Your task to perform on an android device: delete browsing data in the chrome app Image 0: 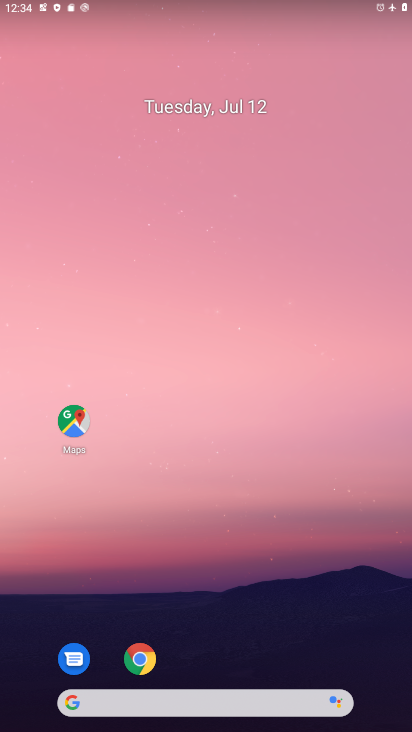
Step 0: drag from (171, 670) to (221, 185)
Your task to perform on an android device: delete browsing data in the chrome app Image 1: 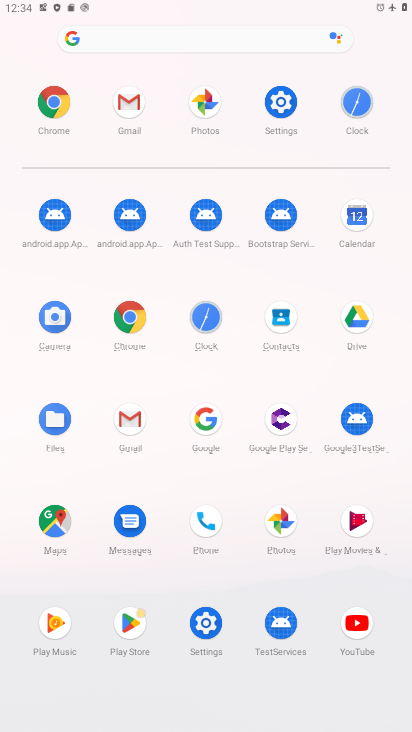
Step 1: click (129, 322)
Your task to perform on an android device: delete browsing data in the chrome app Image 2: 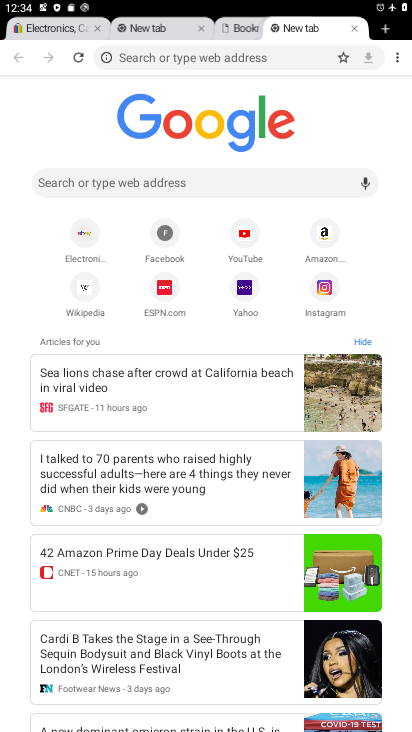
Step 2: click (393, 60)
Your task to perform on an android device: delete browsing data in the chrome app Image 3: 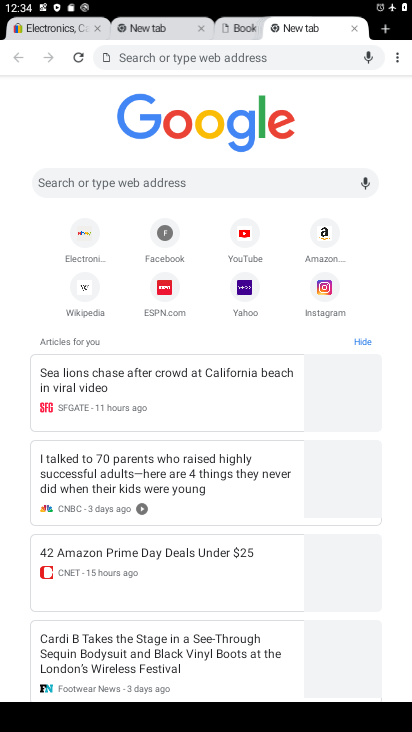
Step 3: drag from (399, 63) to (306, 166)
Your task to perform on an android device: delete browsing data in the chrome app Image 4: 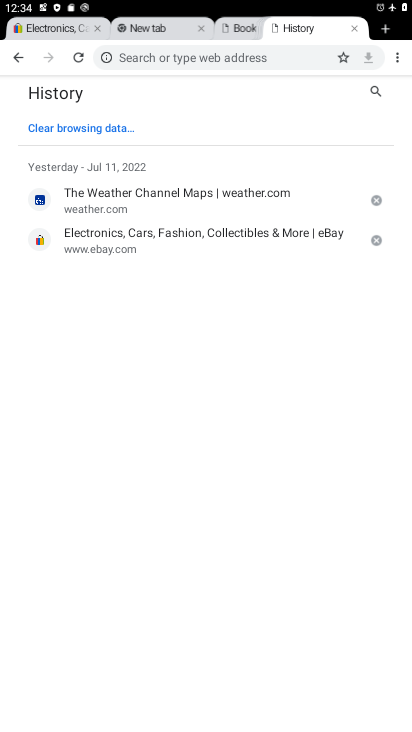
Step 4: click (44, 122)
Your task to perform on an android device: delete browsing data in the chrome app Image 5: 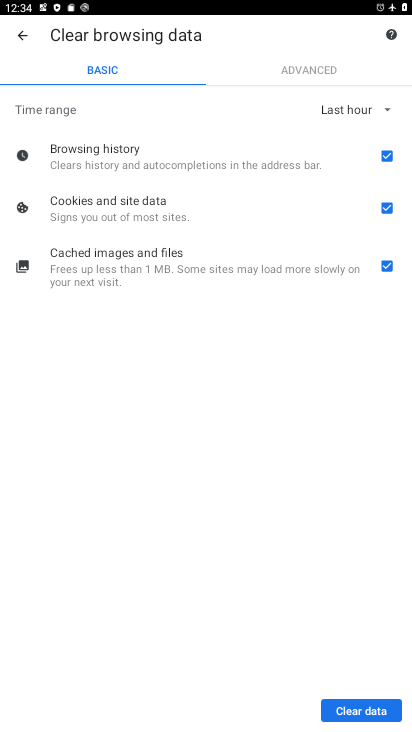
Step 5: drag from (229, 538) to (234, 285)
Your task to perform on an android device: delete browsing data in the chrome app Image 6: 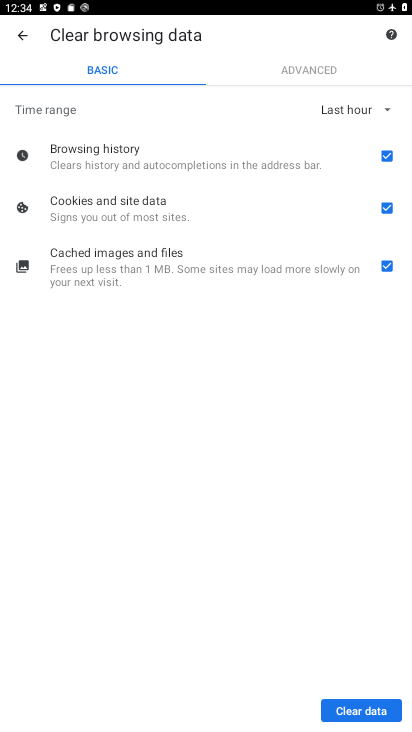
Step 6: drag from (289, 344) to (287, 216)
Your task to perform on an android device: delete browsing data in the chrome app Image 7: 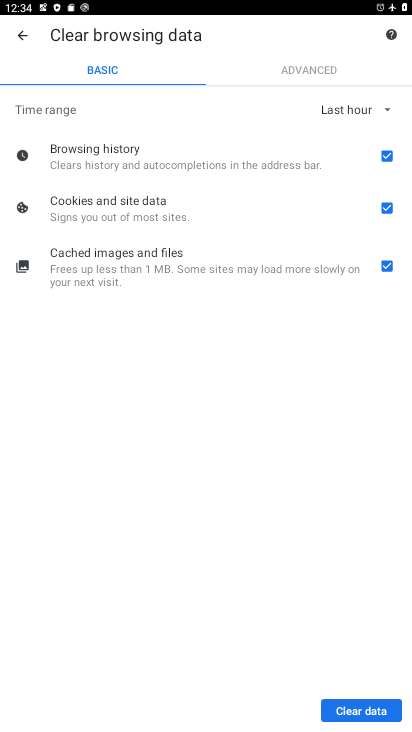
Step 7: click (360, 708)
Your task to perform on an android device: delete browsing data in the chrome app Image 8: 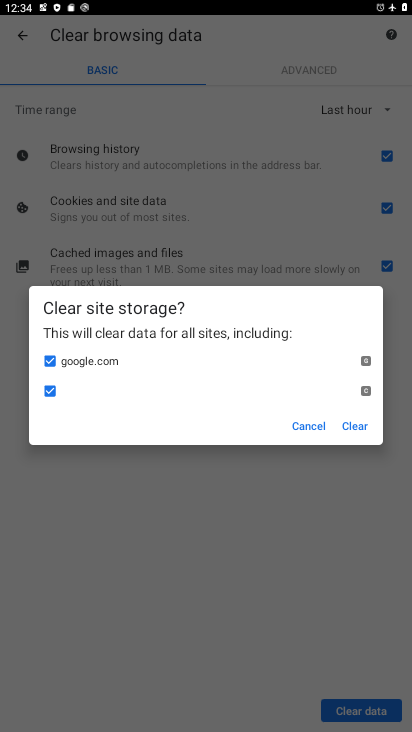
Step 8: click (355, 425)
Your task to perform on an android device: delete browsing data in the chrome app Image 9: 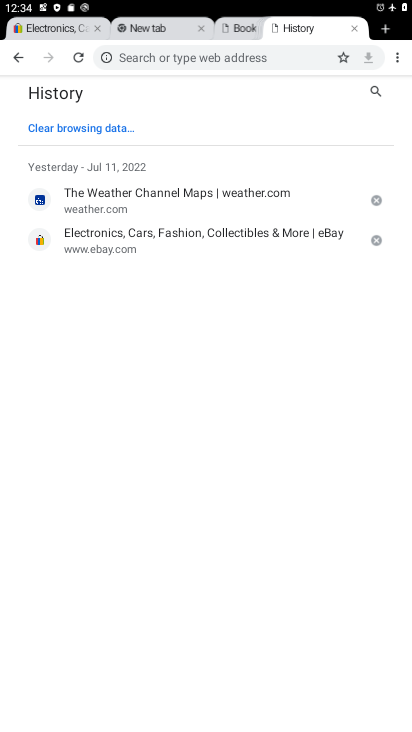
Step 9: task complete